Your task to perform on an android device: Open Reddit.com Image 0: 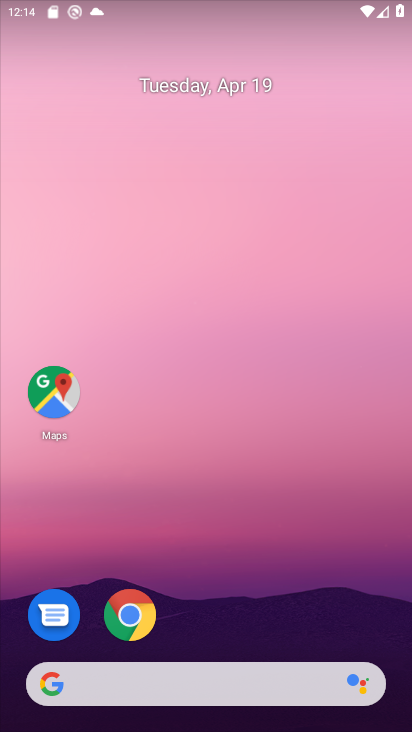
Step 0: click (125, 616)
Your task to perform on an android device: Open Reddit.com Image 1: 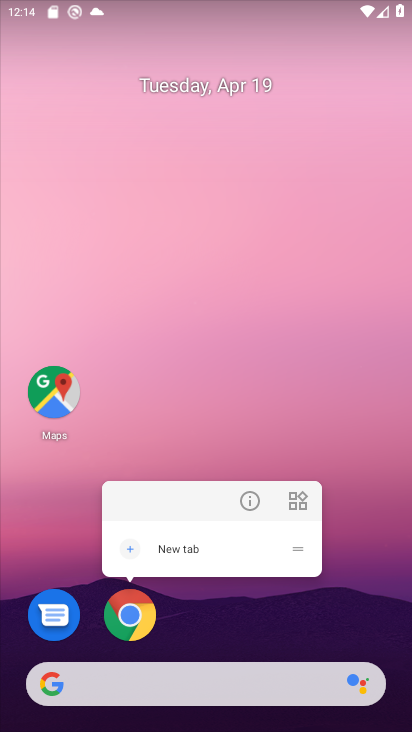
Step 1: click (132, 621)
Your task to perform on an android device: Open Reddit.com Image 2: 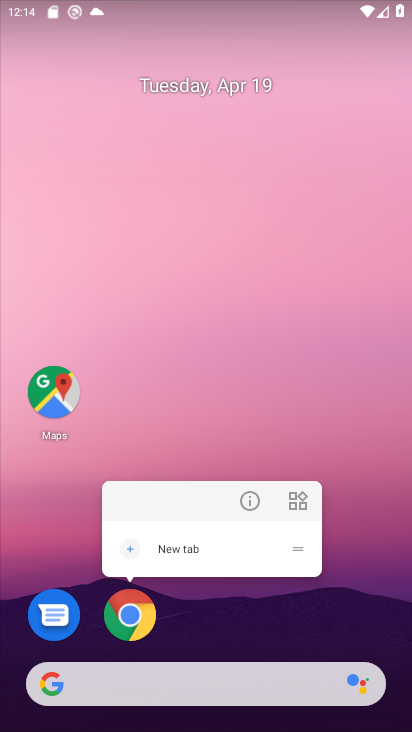
Step 2: click (132, 608)
Your task to perform on an android device: Open Reddit.com Image 3: 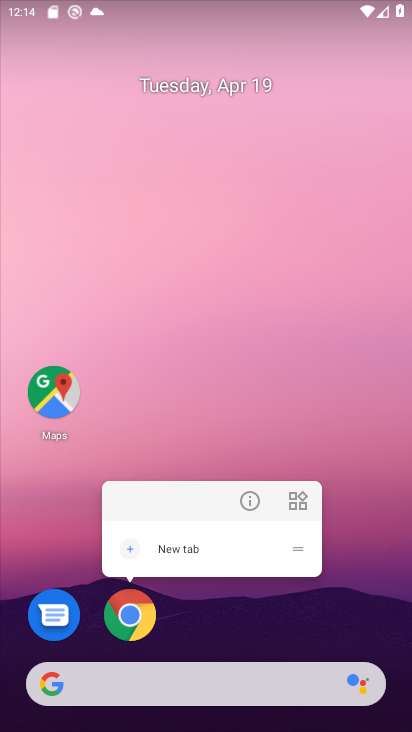
Step 3: click (123, 624)
Your task to perform on an android device: Open Reddit.com Image 4: 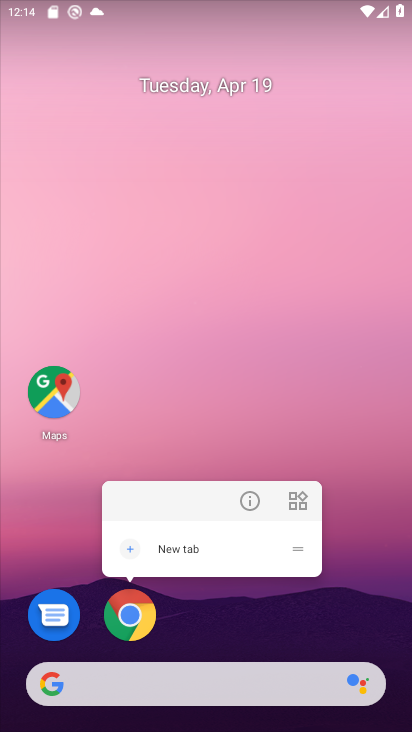
Step 4: click (137, 613)
Your task to perform on an android device: Open Reddit.com Image 5: 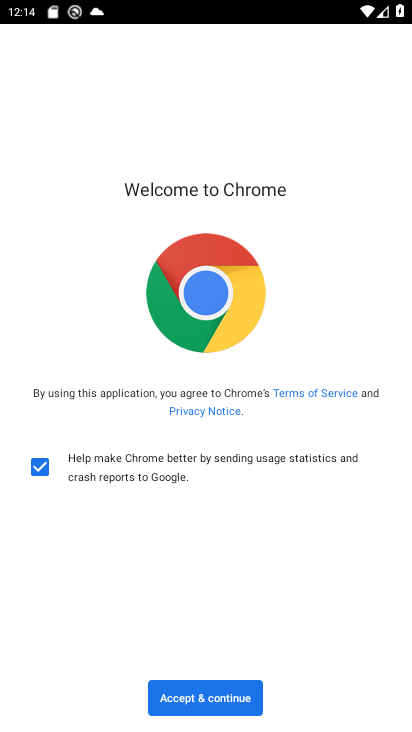
Step 5: click (227, 697)
Your task to perform on an android device: Open Reddit.com Image 6: 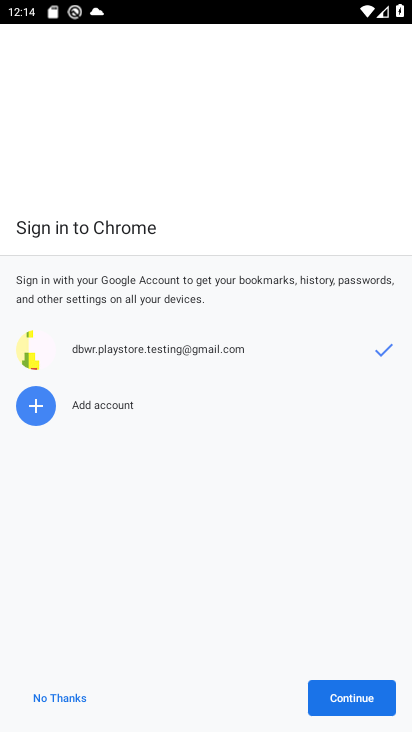
Step 6: click (338, 703)
Your task to perform on an android device: Open Reddit.com Image 7: 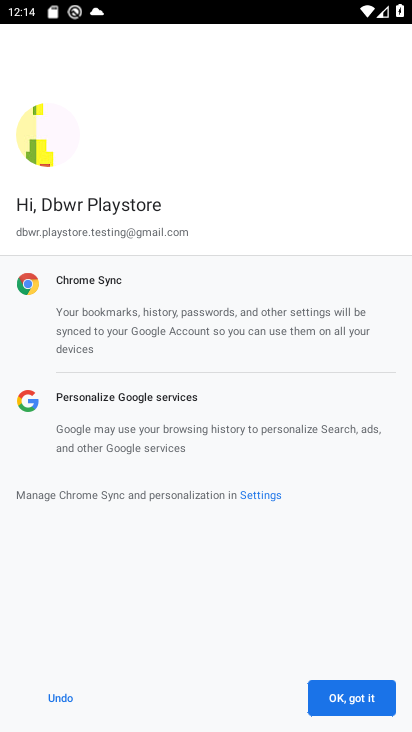
Step 7: click (338, 703)
Your task to perform on an android device: Open Reddit.com Image 8: 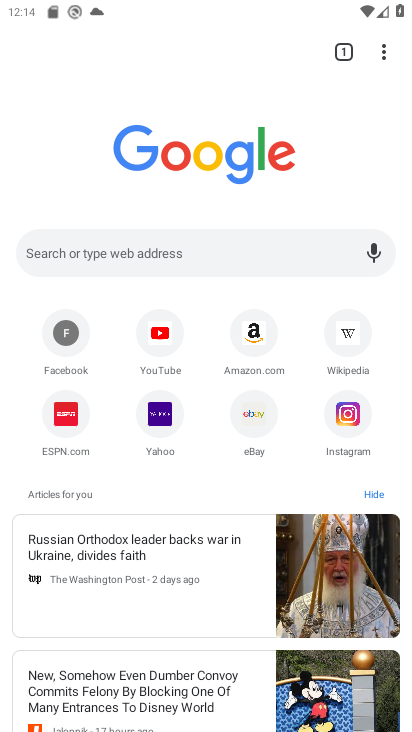
Step 8: click (92, 251)
Your task to perform on an android device: Open Reddit.com Image 9: 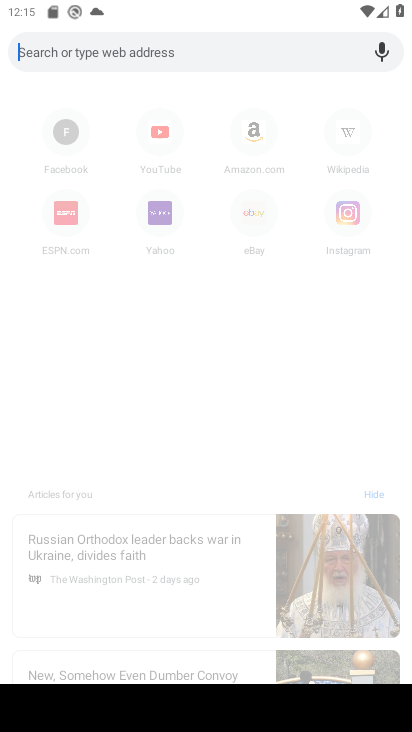
Step 9: type "Reddit.com"
Your task to perform on an android device: Open Reddit.com Image 10: 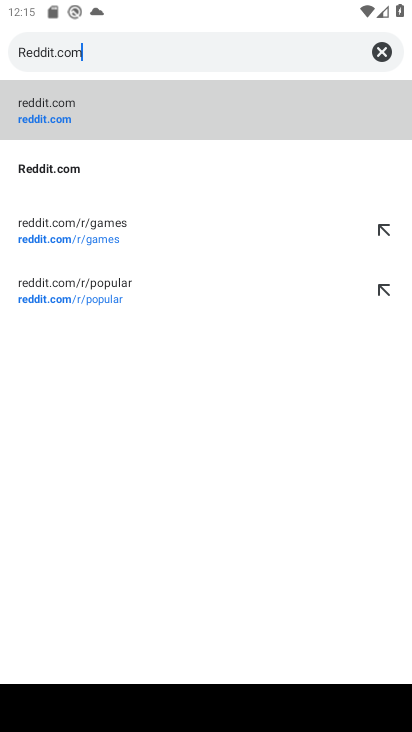
Step 10: click (64, 173)
Your task to perform on an android device: Open Reddit.com Image 11: 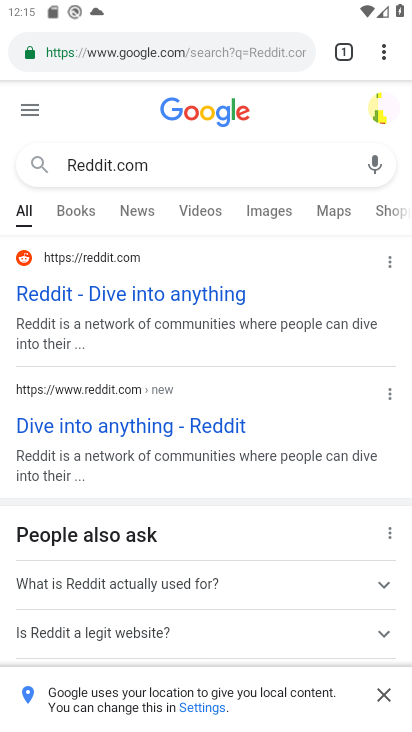
Step 11: click (97, 298)
Your task to perform on an android device: Open Reddit.com Image 12: 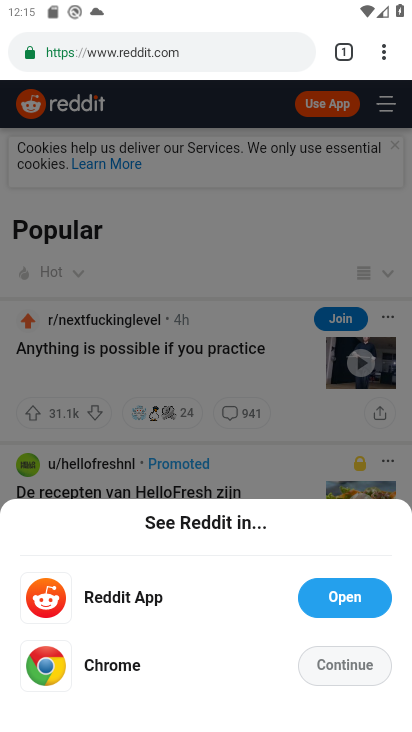
Step 12: task complete